Your task to perform on an android device: turn vacation reply on in the gmail app Image 0: 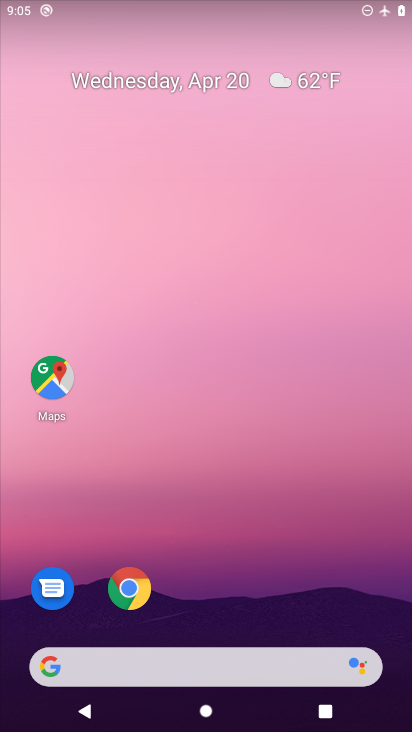
Step 0: drag from (205, 542) to (196, 49)
Your task to perform on an android device: turn vacation reply on in the gmail app Image 1: 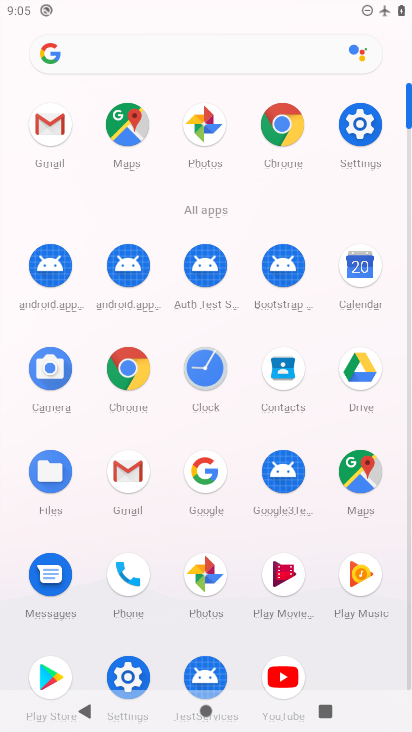
Step 1: click (47, 118)
Your task to perform on an android device: turn vacation reply on in the gmail app Image 2: 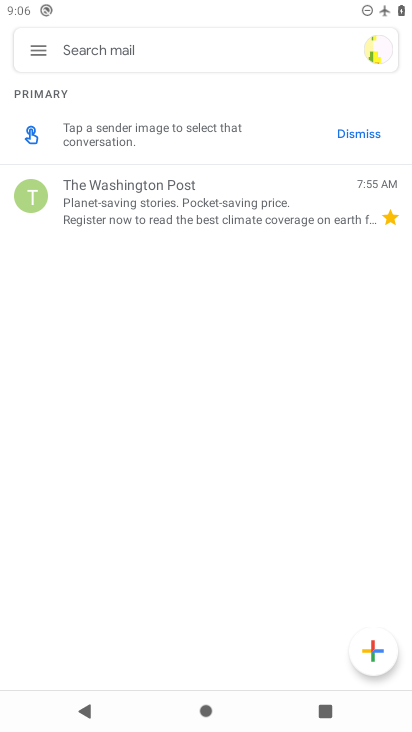
Step 2: click (35, 47)
Your task to perform on an android device: turn vacation reply on in the gmail app Image 3: 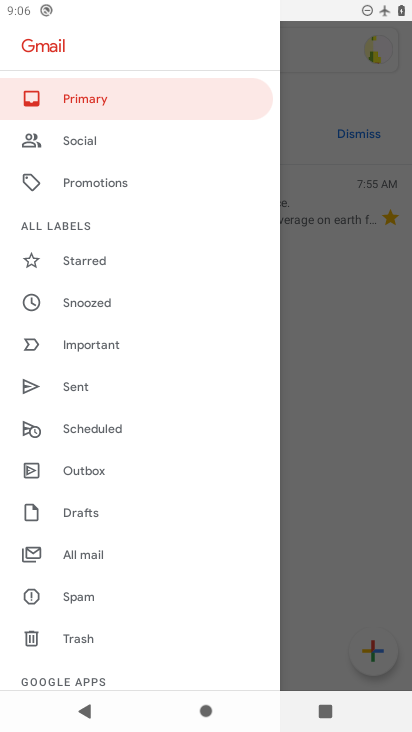
Step 3: drag from (111, 625) to (105, 235)
Your task to perform on an android device: turn vacation reply on in the gmail app Image 4: 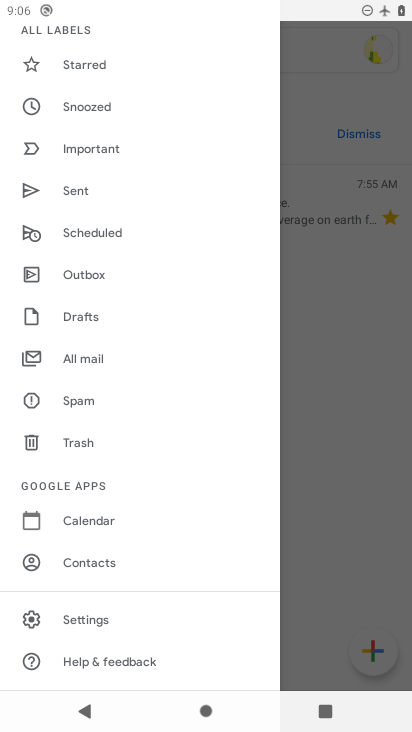
Step 4: click (118, 616)
Your task to perform on an android device: turn vacation reply on in the gmail app Image 5: 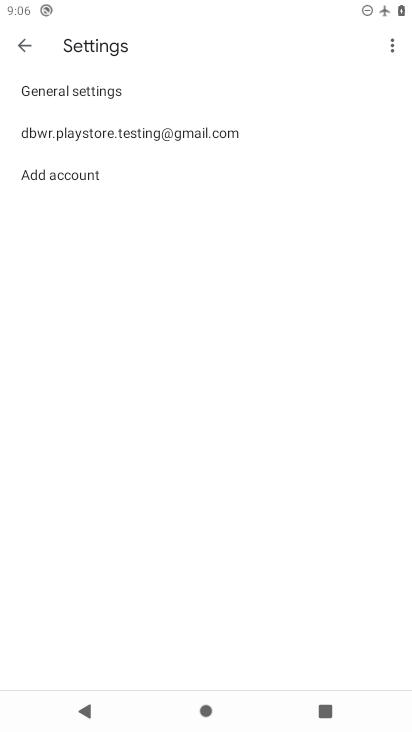
Step 5: click (245, 126)
Your task to perform on an android device: turn vacation reply on in the gmail app Image 6: 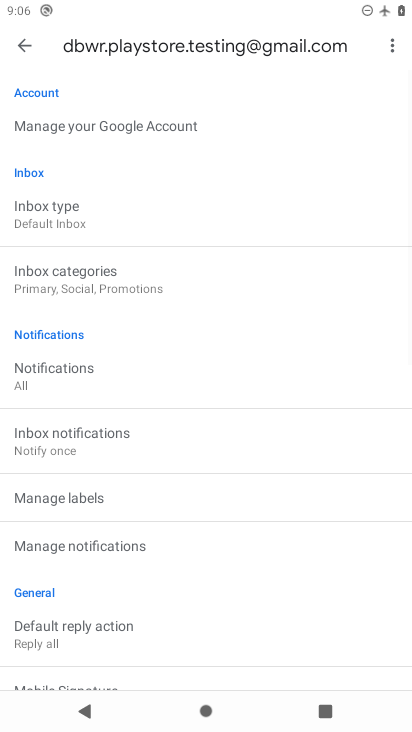
Step 6: drag from (194, 614) to (235, 127)
Your task to perform on an android device: turn vacation reply on in the gmail app Image 7: 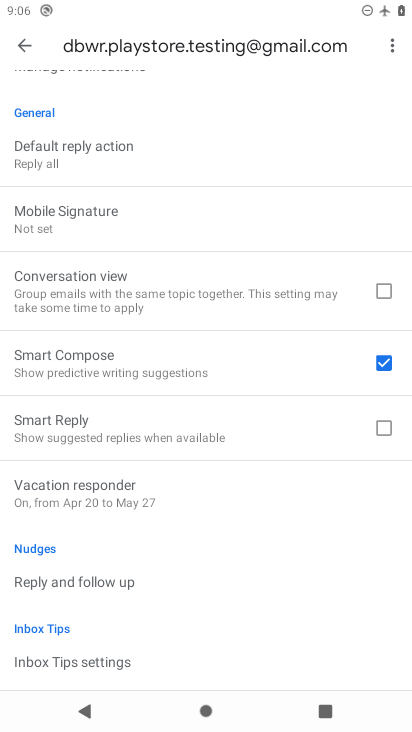
Step 7: click (165, 490)
Your task to perform on an android device: turn vacation reply on in the gmail app Image 8: 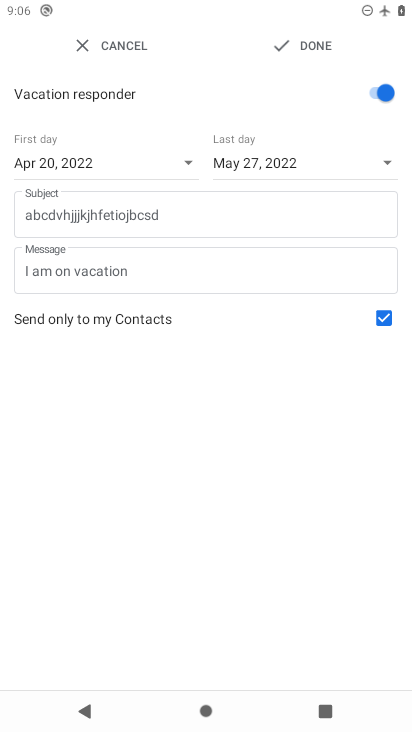
Step 8: task complete